Your task to perform on an android device: Set an alarmfor 5pm Image 0: 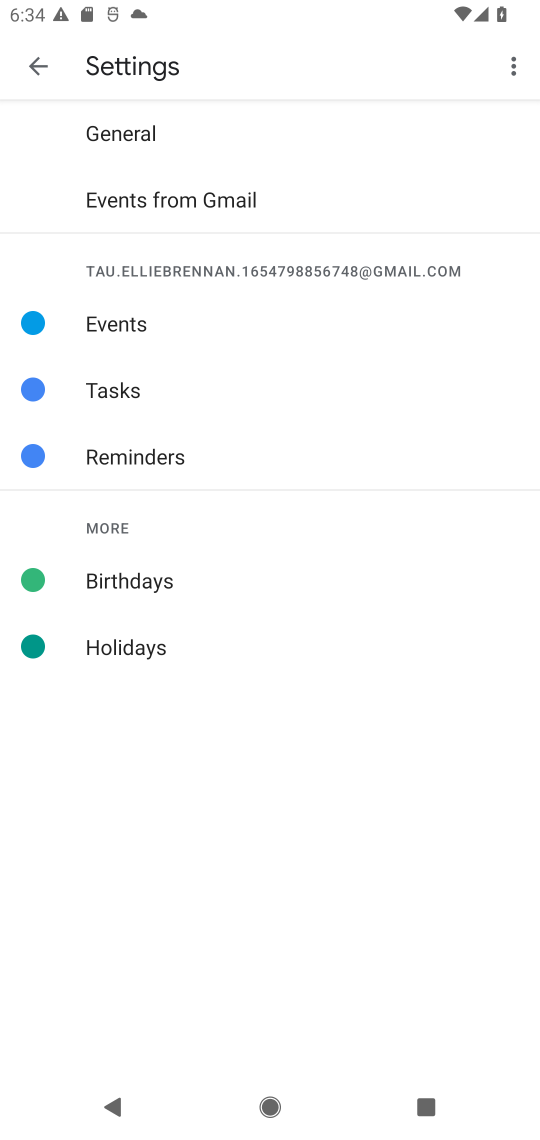
Step 0: press home button
Your task to perform on an android device: Set an alarmfor 5pm Image 1: 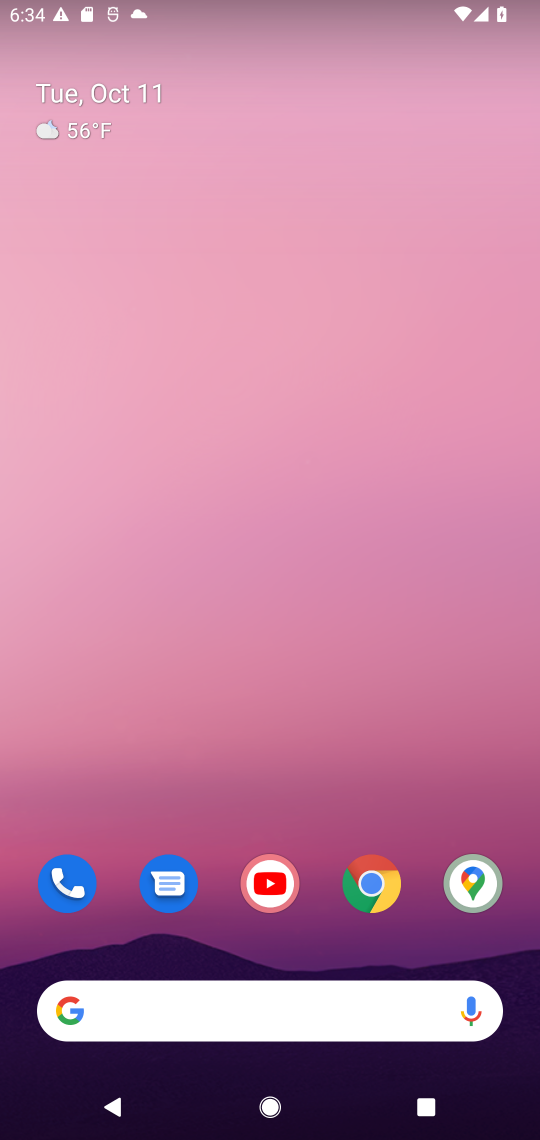
Step 1: drag from (316, 940) to (358, 45)
Your task to perform on an android device: Set an alarmfor 5pm Image 2: 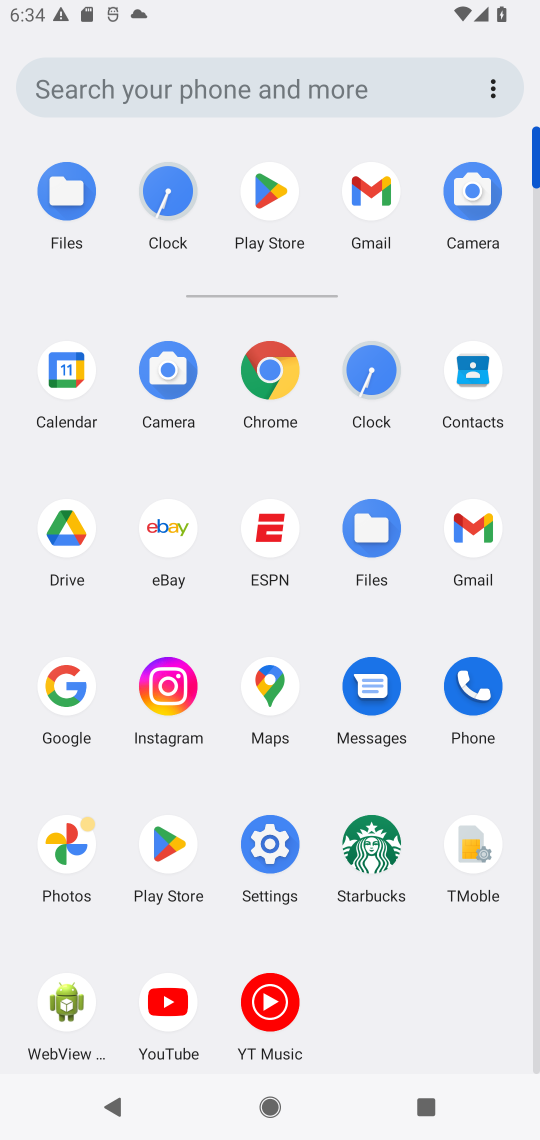
Step 2: click (370, 370)
Your task to perform on an android device: Set an alarmfor 5pm Image 3: 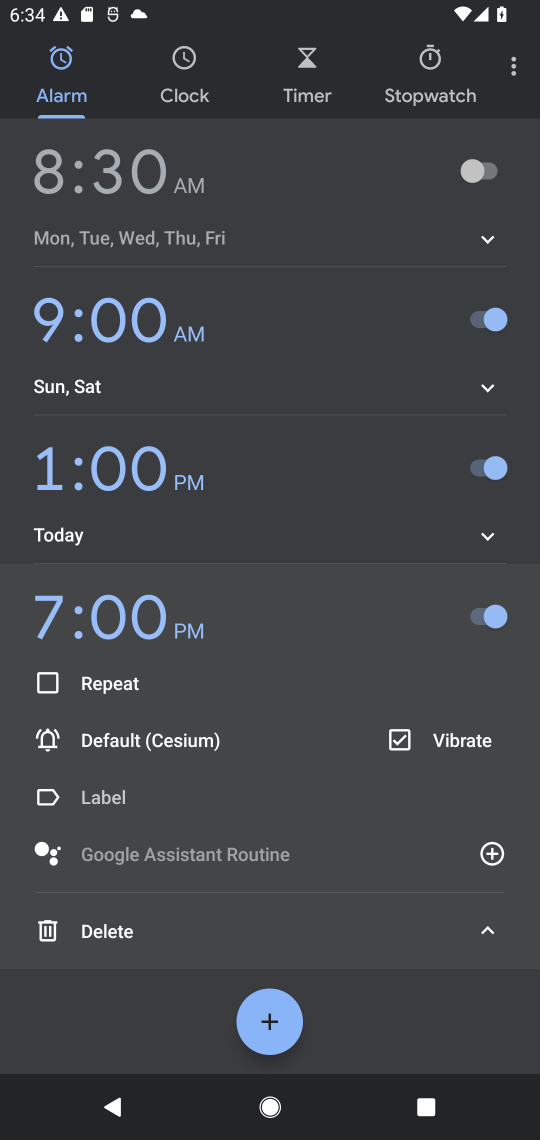
Step 3: click (280, 1001)
Your task to perform on an android device: Set an alarmfor 5pm Image 4: 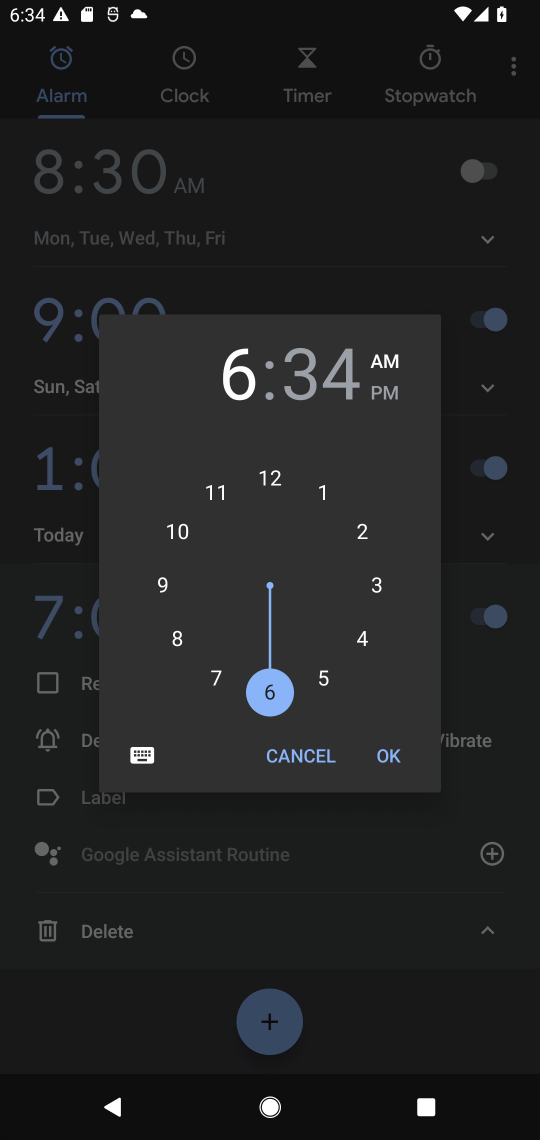
Step 4: click (335, 680)
Your task to perform on an android device: Set an alarmfor 5pm Image 5: 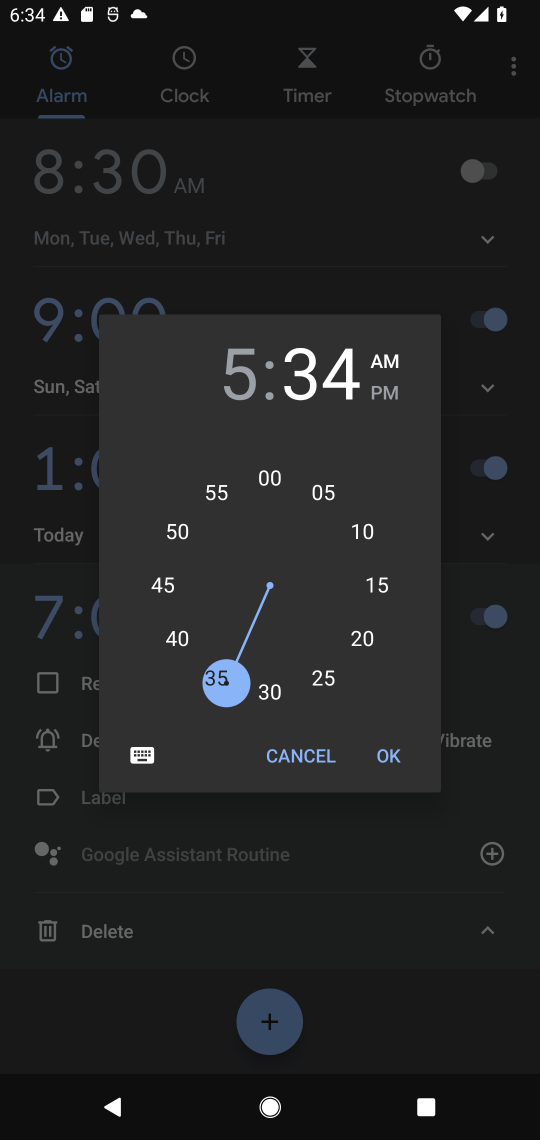
Step 5: click (275, 476)
Your task to perform on an android device: Set an alarmfor 5pm Image 6: 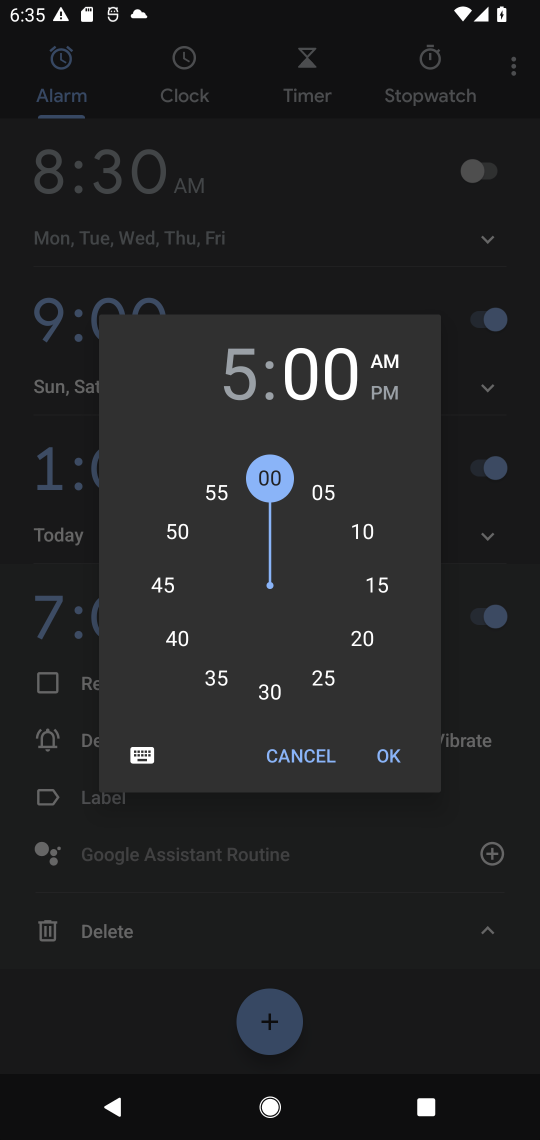
Step 6: click (397, 404)
Your task to perform on an android device: Set an alarmfor 5pm Image 7: 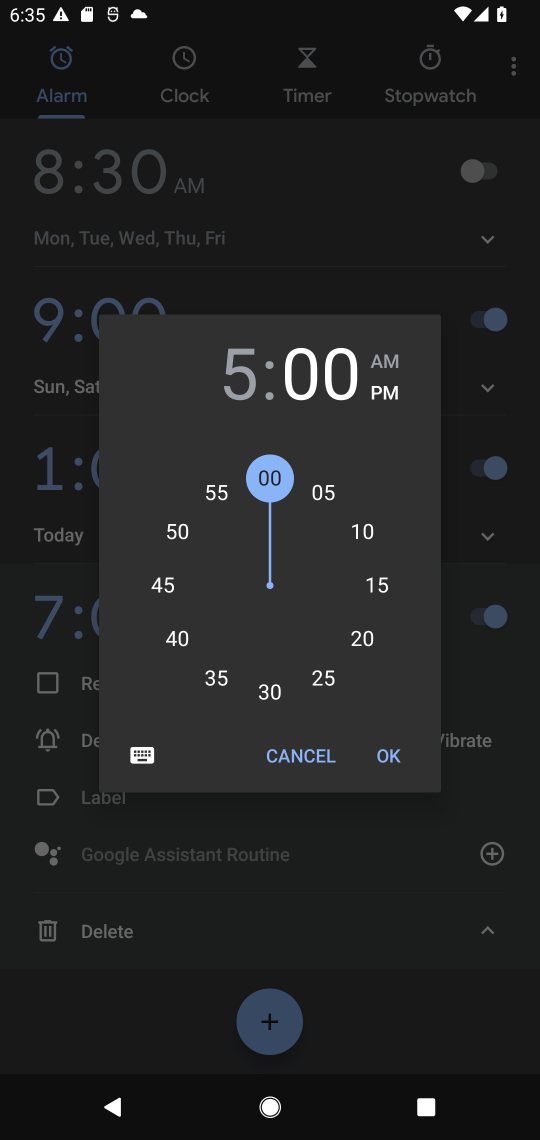
Step 7: click (403, 751)
Your task to perform on an android device: Set an alarmfor 5pm Image 8: 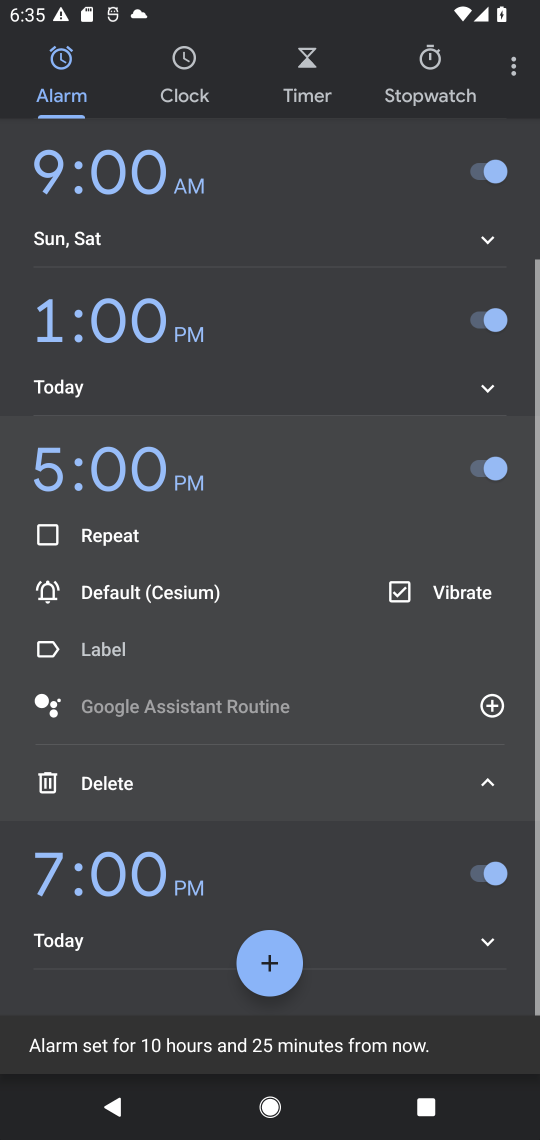
Step 8: task complete